Your task to perform on an android device: turn on the 24-hour format for clock Image 0: 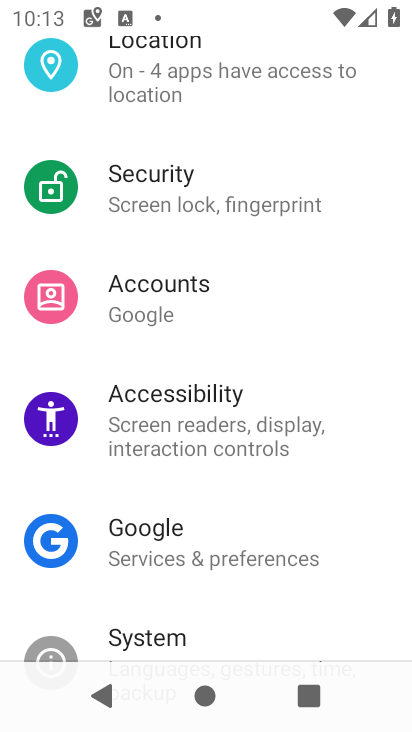
Step 0: press home button
Your task to perform on an android device: turn on the 24-hour format for clock Image 1: 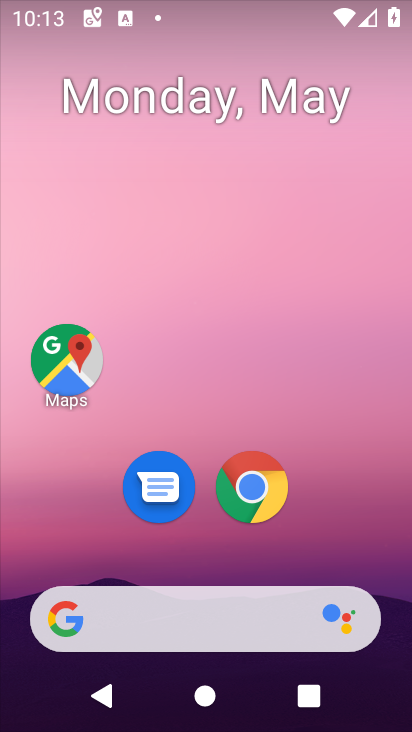
Step 1: drag from (187, 546) to (247, 19)
Your task to perform on an android device: turn on the 24-hour format for clock Image 2: 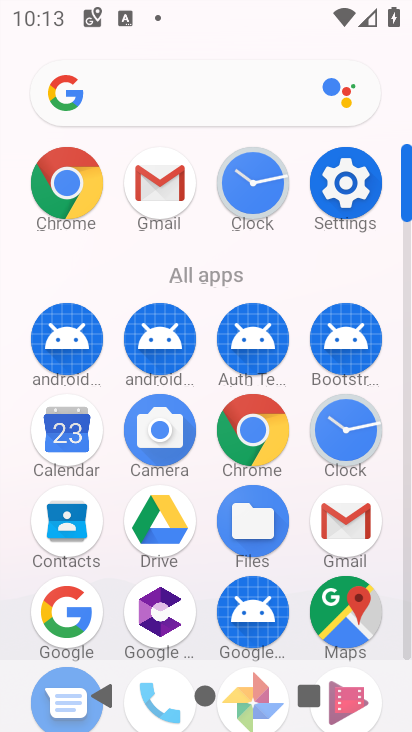
Step 2: click (340, 433)
Your task to perform on an android device: turn on the 24-hour format for clock Image 3: 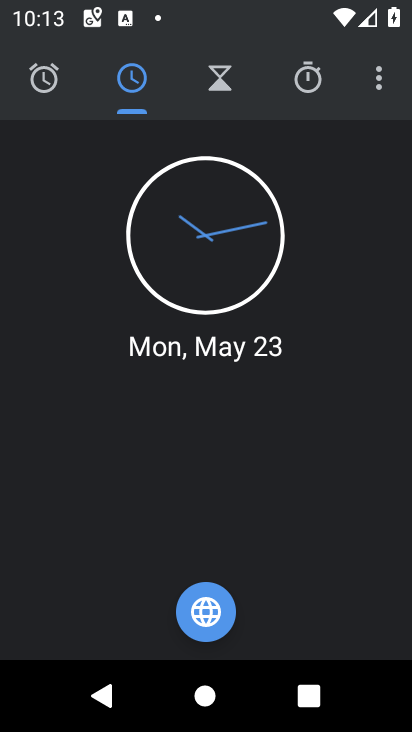
Step 3: click (387, 91)
Your task to perform on an android device: turn on the 24-hour format for clock Image 4: 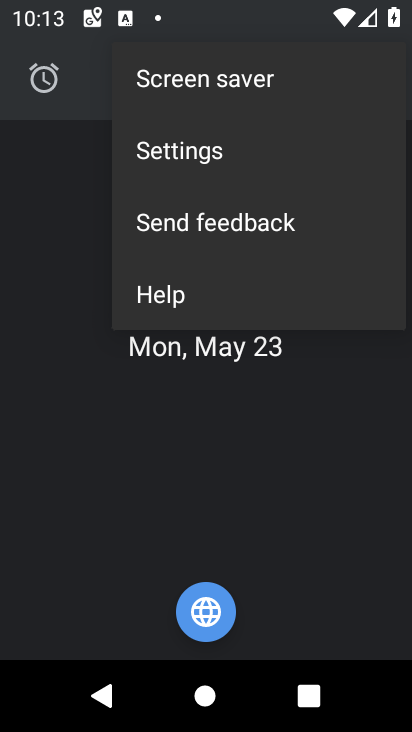
Step 4: click (262, 154)
Your task to perform on an android device: turn on the 24-hour format for clock Image 5: 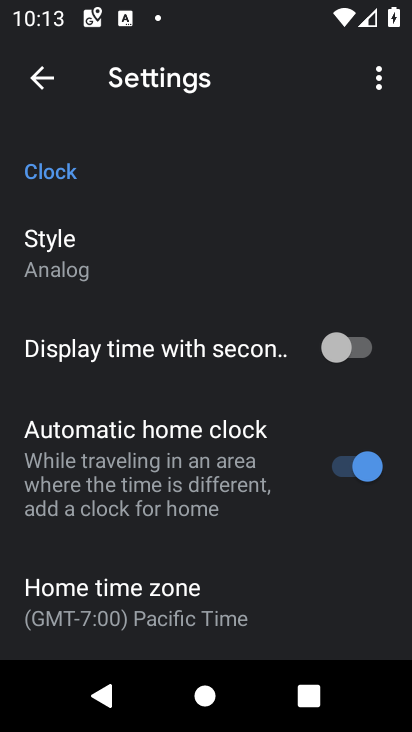
Step 5: drag from (174, 530) to (159, 163)
Your task to perform on an android device: turn on the 24-hour format for clock Image 6: 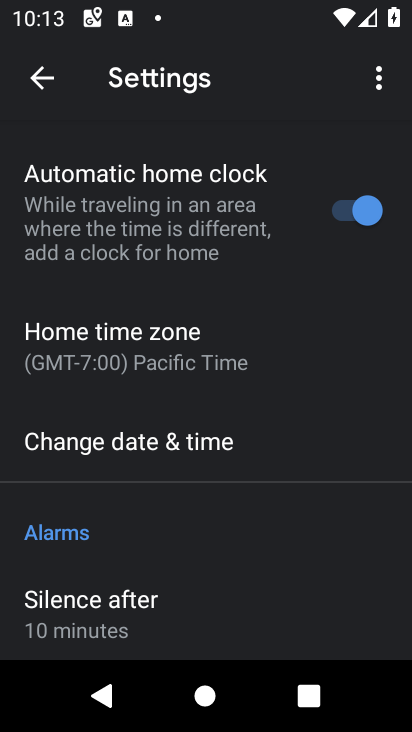
Step 6: click (187, 434)
Your task to perform on an android device: turn on the 24-hour format for clock Image 7: 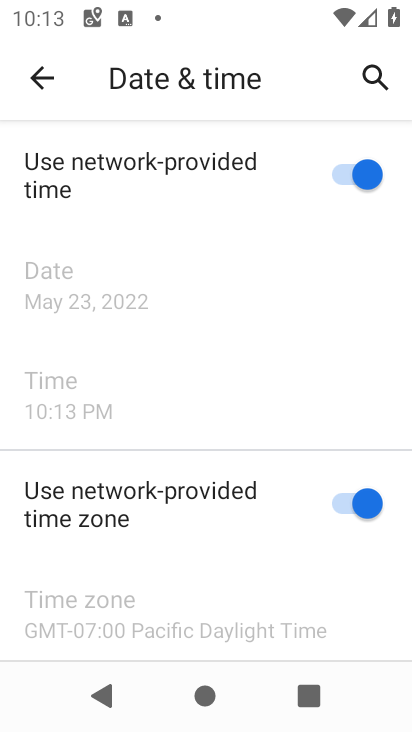
Step 7: drag from (157, 554) to (175, 168)
Your task to perform on an android device: turn on the 24-hour format for clock Image 8: 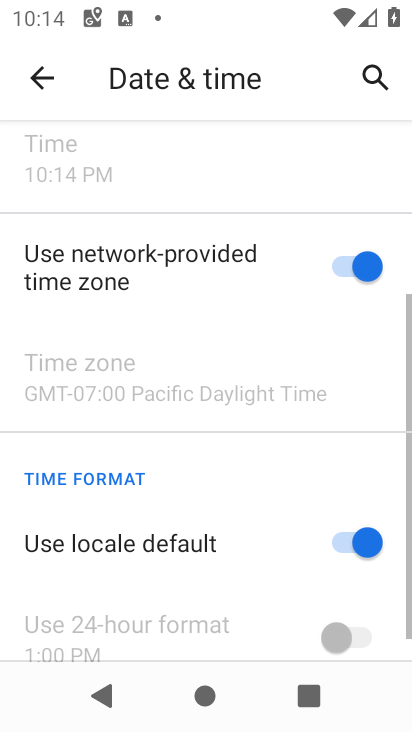
Step 8: click (359, 545)
Your task to perform on an android device: turn on the 24-hour format for clock Image 9: 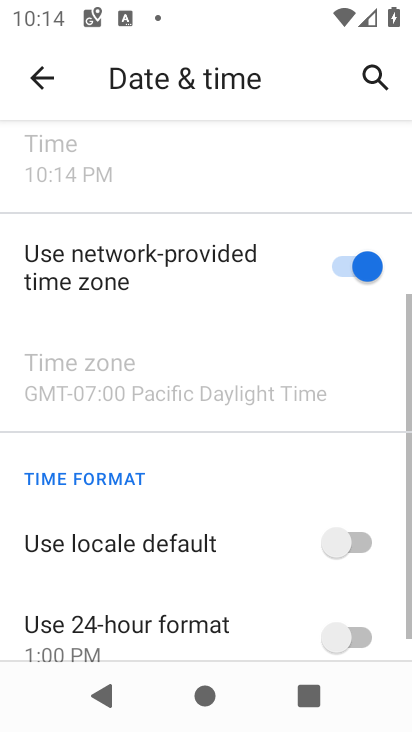
Step 9: click (355, 651)
Your task to perform on an android device: turn on the 24-hour format for clock Image 10: 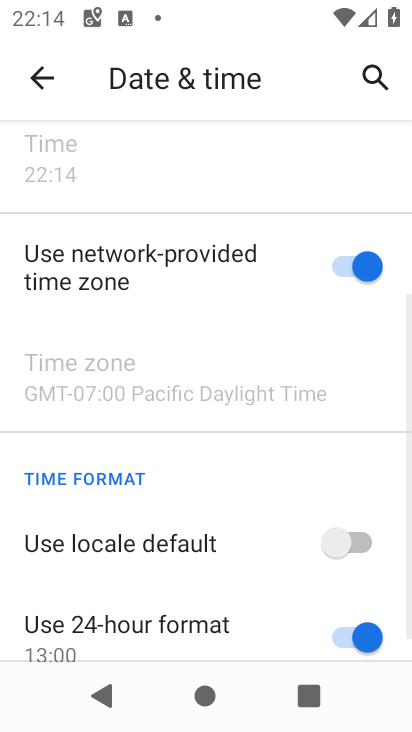
Step 10: task complete